Your task to perform on an android device: Open notification settings Image 0: 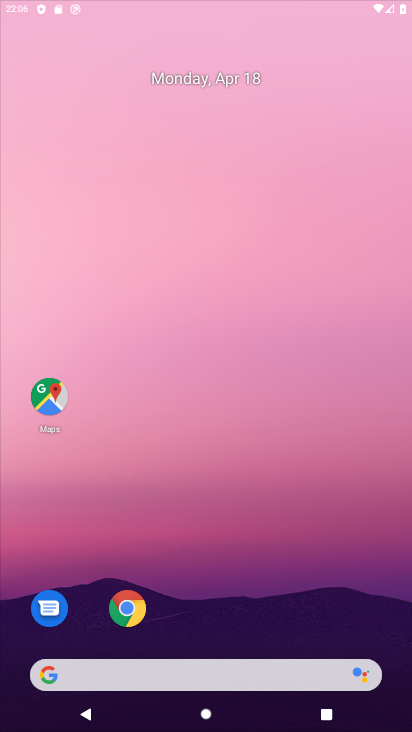
Step 0: click (222, 130)
Your task to perform on an android device: Open notification settings Image 1: 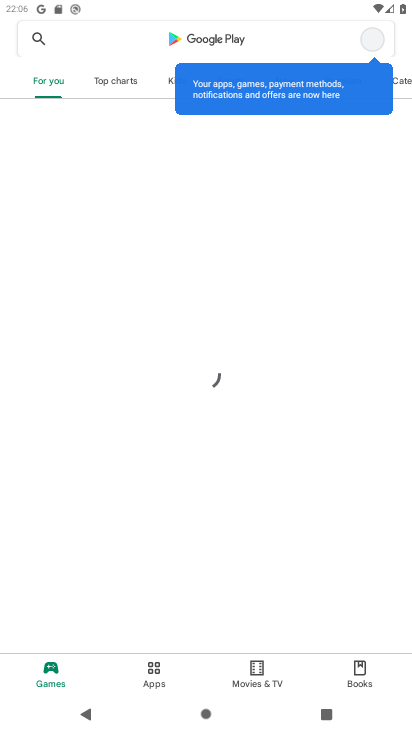
Step 1: press home button
Your task to perform on an android device: Open notification settings Image 2: 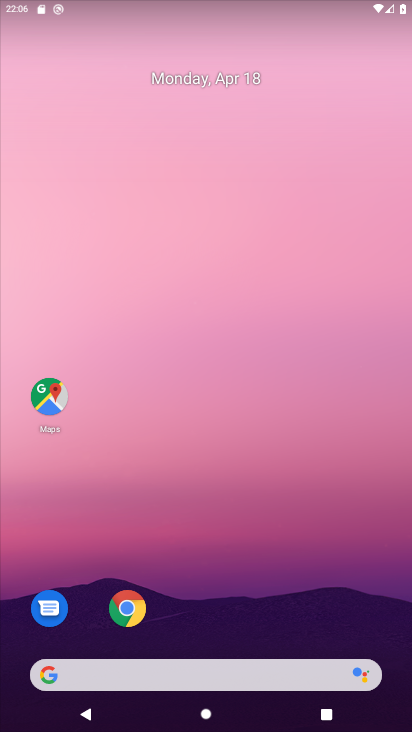
Step 2: drag from (247, 508) to (240, 124)
Your task to perform on an android device: Open notification settings Image 3: 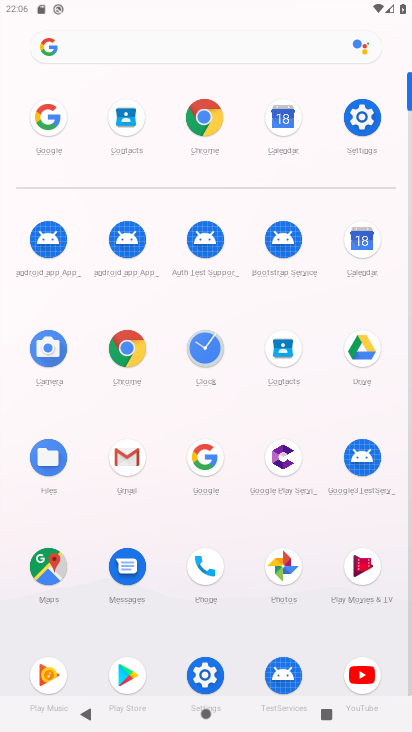
Step 3: click (358, 118)
Your task to perform on an android device: Open notification settings Image 4: 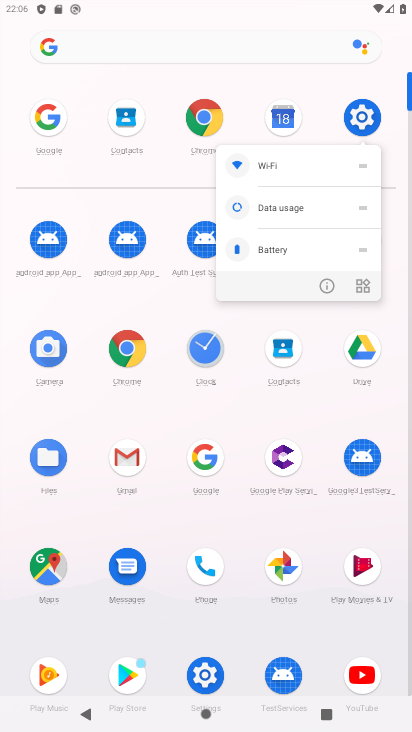
Step 4: click (358, 119)
Your task to perform on an android device: Open notification settings Image 5: 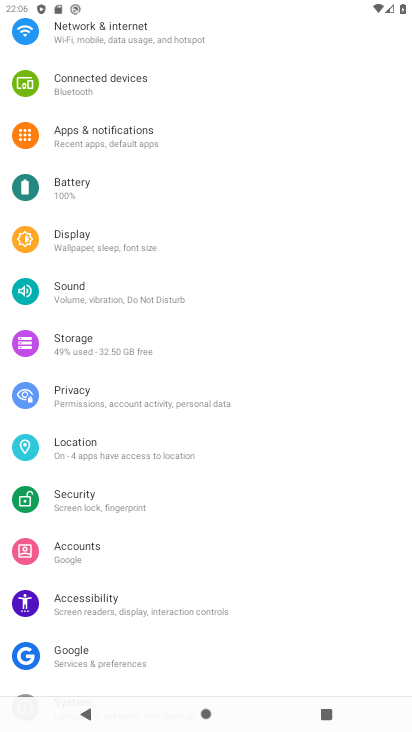
Step 5: click (96, 137)
Your task to perform on an android device: Open notification settings Image 6: 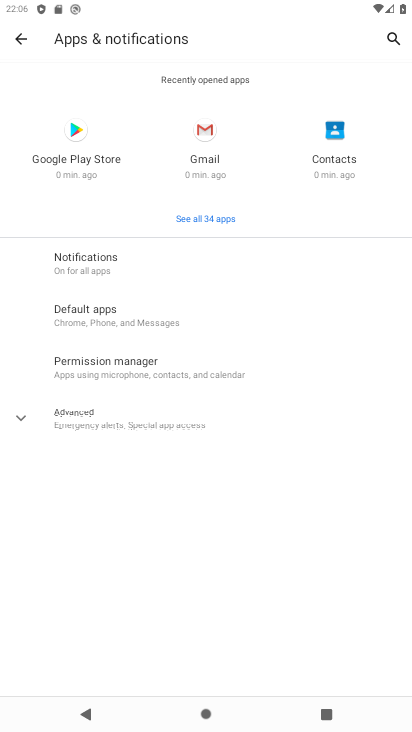
Step 6: click (89, 263)
Your task to perform on an android device: Open notification settings Image 7: 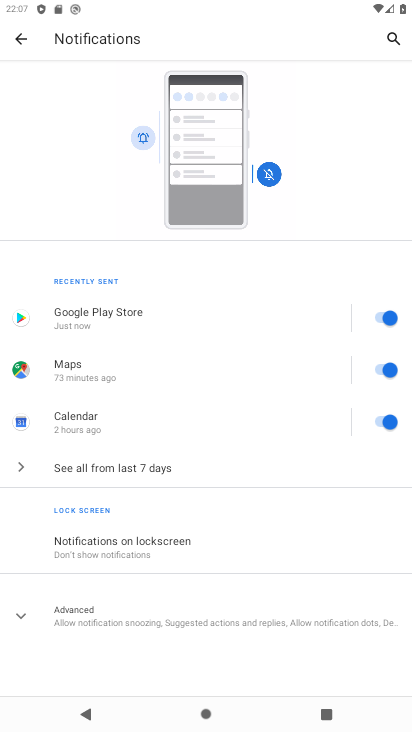
Step 7: task complete